Your task to perform on an android device: Go to internet settings Image 0: 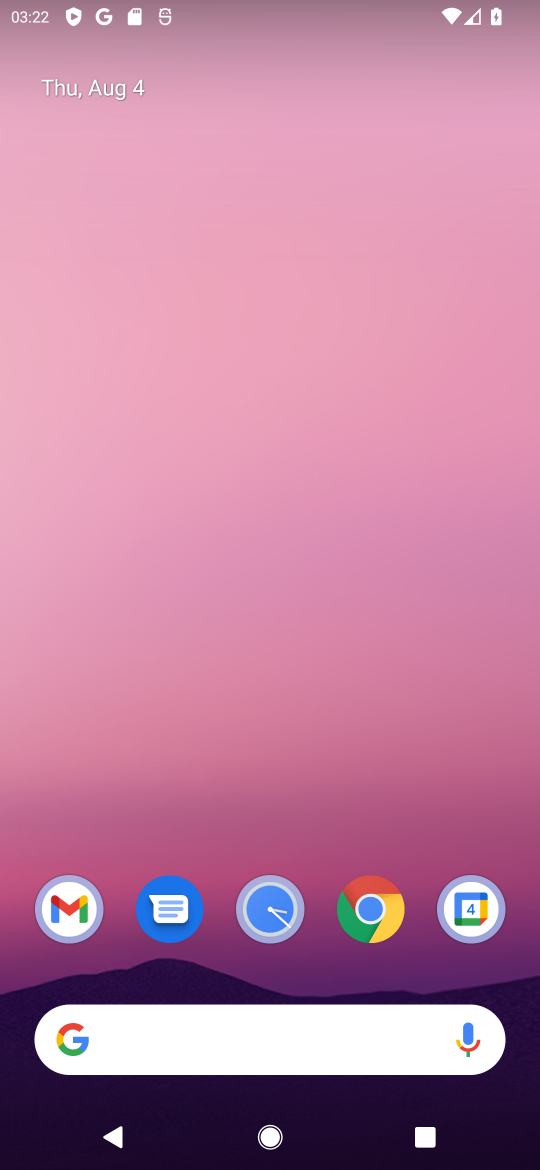
Step 0: drag from (252, 999) to (391, 429)
Your task to perform on an android device: Go to internet settings Image 1: 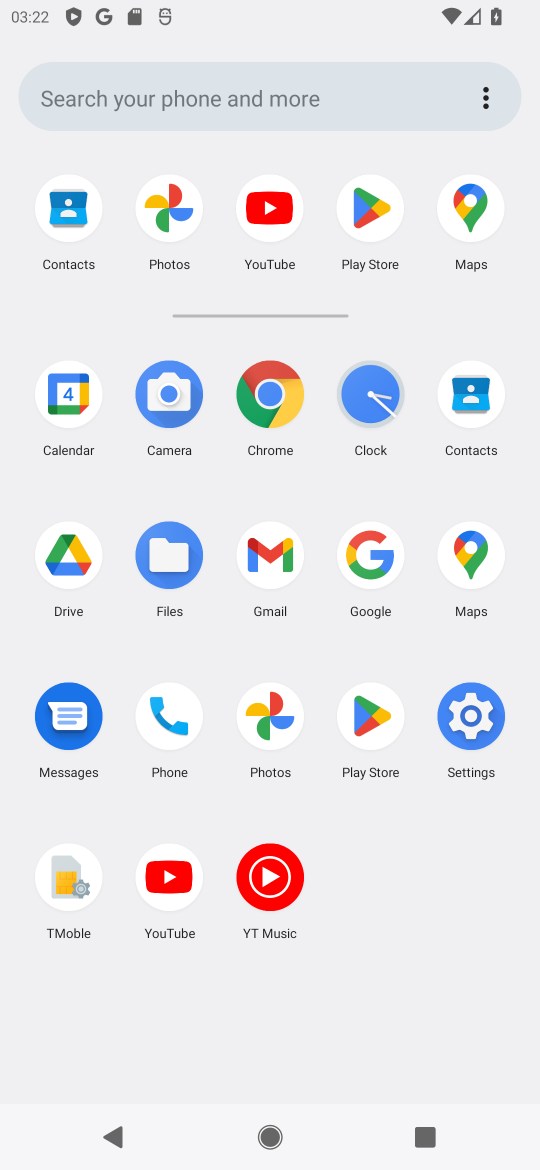
Step 1: click (463, 733)
Your task to perform on an android device: Go to internet settings Image 2: 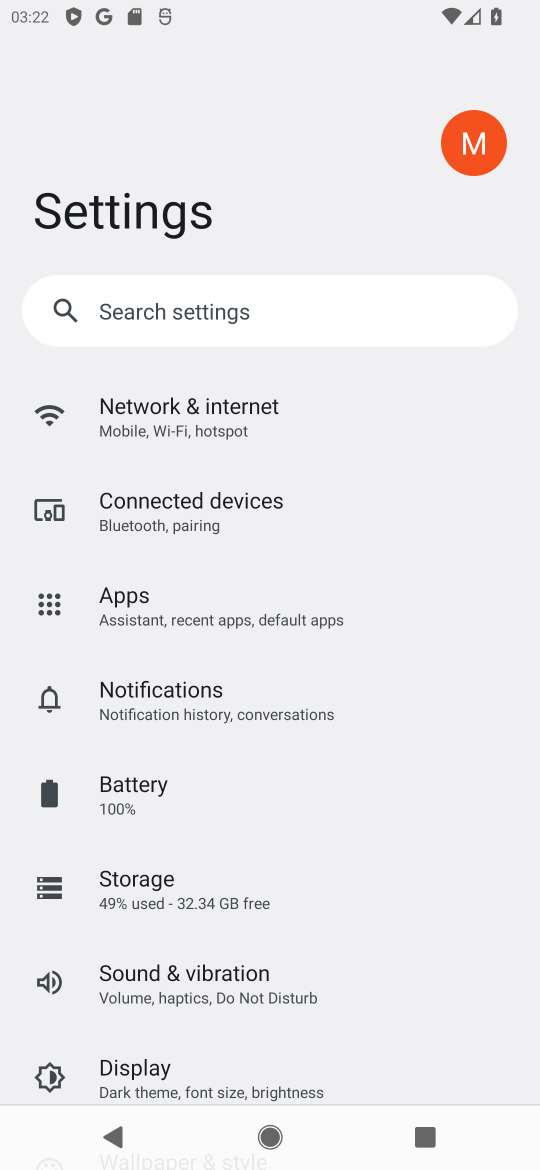
Step 2: click (255, 432)
Your task to perform on an android device: Go to internet settings Image 3: 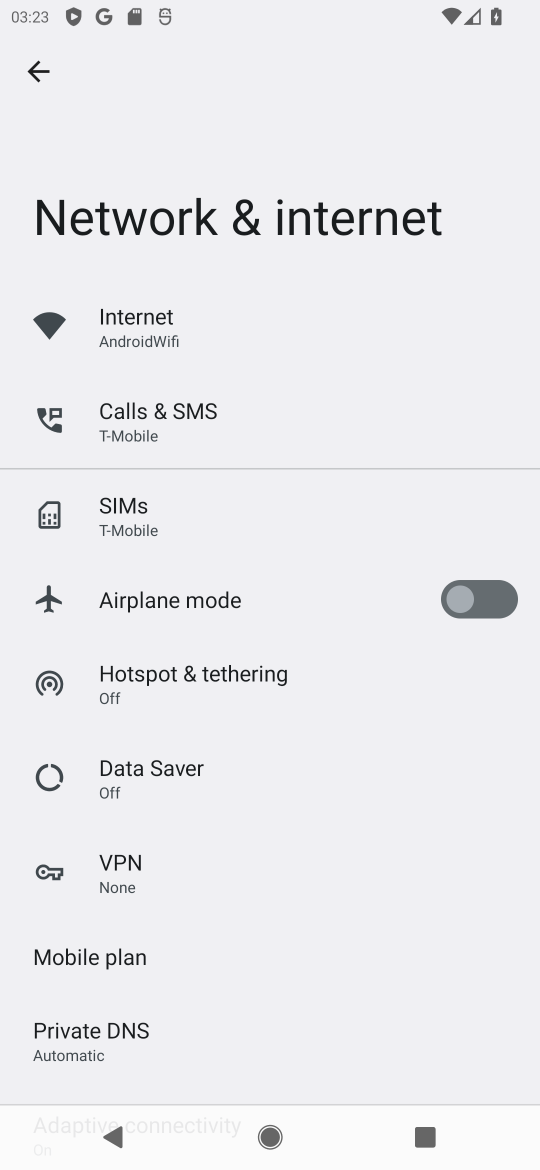
Step 3: click (187, 356)
Your task to perform on an android device: Go to internet settings Image 4: 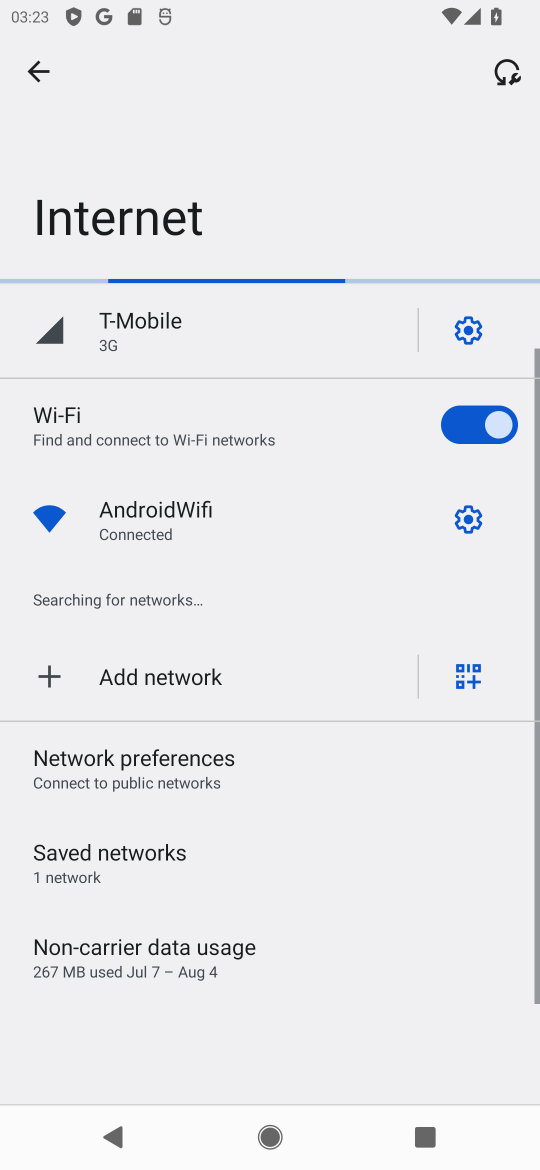
Step 4: task complete